Your task to perform on an android device: change the clock display to digital Image 0: 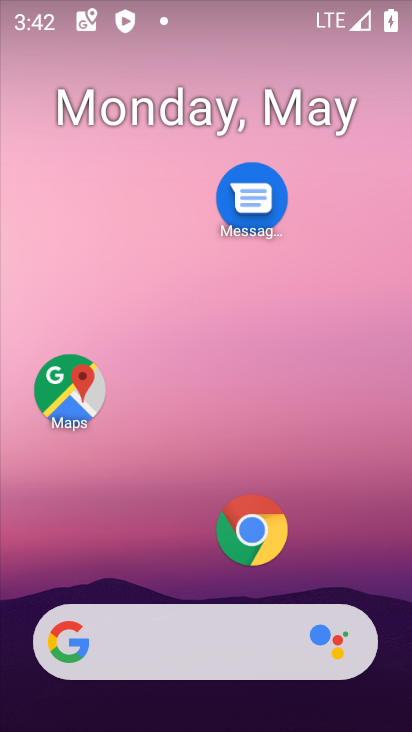
Step 0: drag from (141, 557) to (176, 113)
Your task to perform on an android device: change the clock display to digital Image 1: 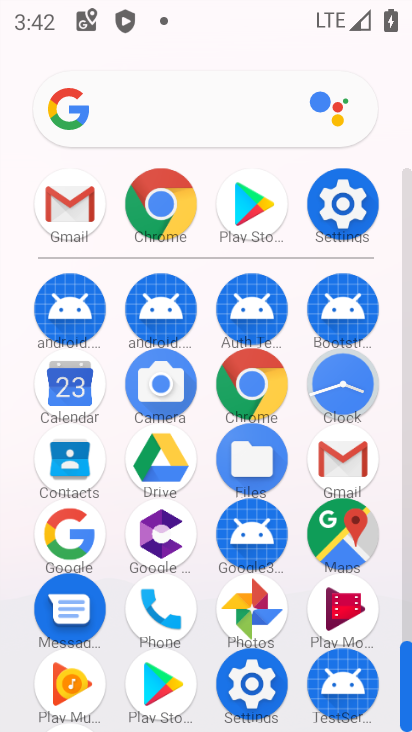
Step 1: click (339, 395)
Your task to perform on an android device: change the clock display to digital Image 2: 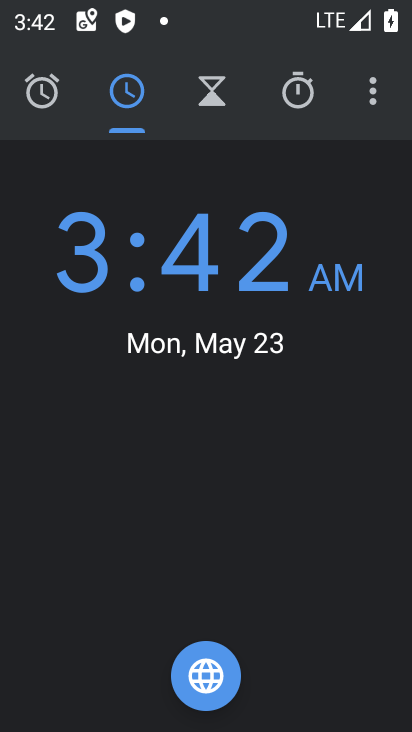
Step 2: click (374, 80)
Your task to perform on an android device: change the clock display to digital Image 3: 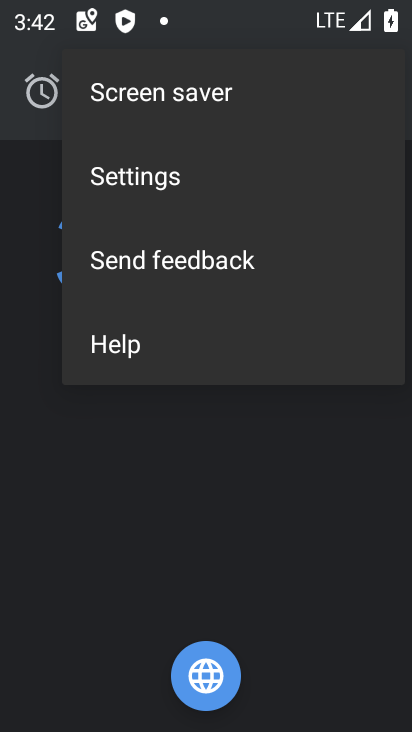
Step 3: click (166, 184)
Your task to perform on an android device: change the clock display to digital Image 4: 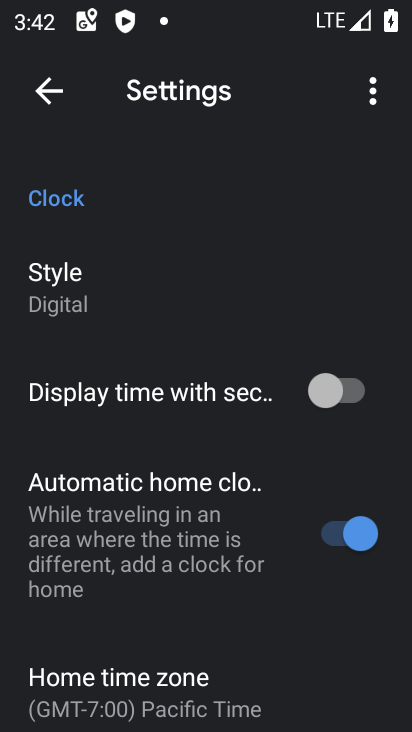
Step 4: task complete